Your task to perform on an android device: What's the weather? Image 0: 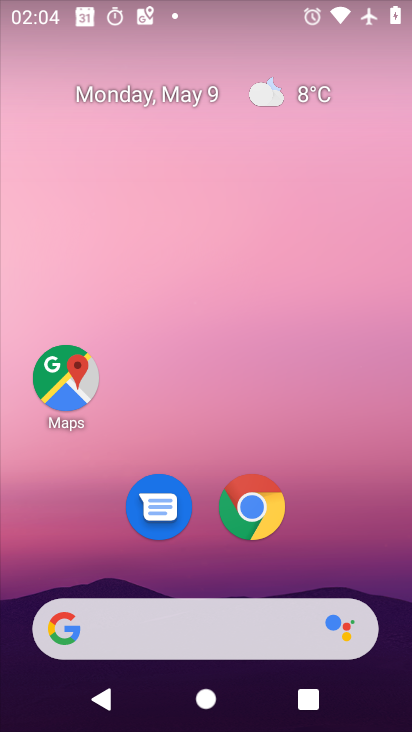
Step 0: click (262, 85)
Your task to perform on an android device: What's the weather? Image 1: 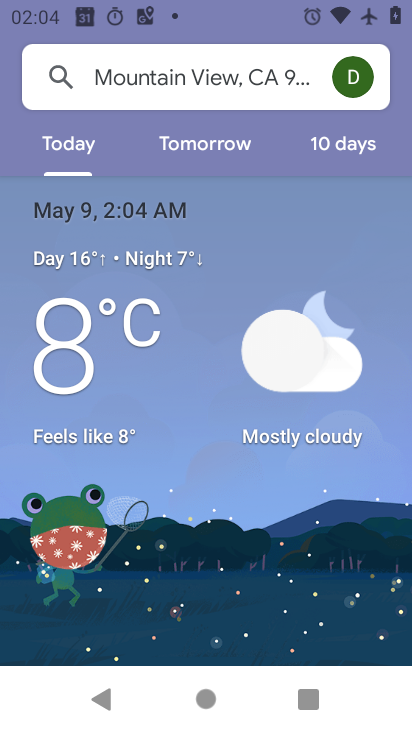
Step 1: task complete